Your task to perform on an android device: Open the calendar app, open the side menu, and click the "Day" option Image 0: 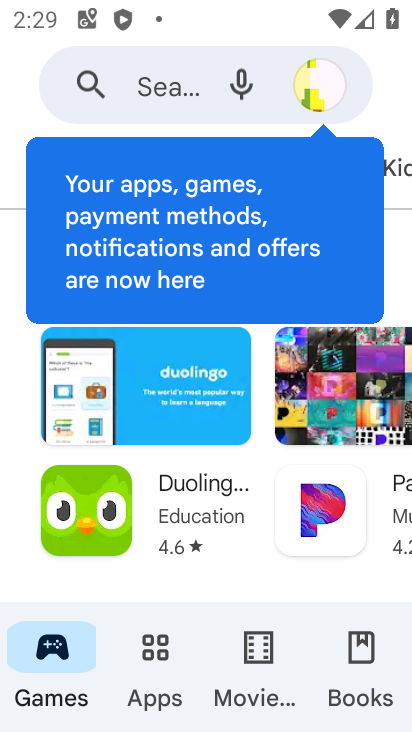
Step 0: press home button
Your task to perform on an android device: Open the calendar app, open the side menu, and click the "Day" option Image 1: 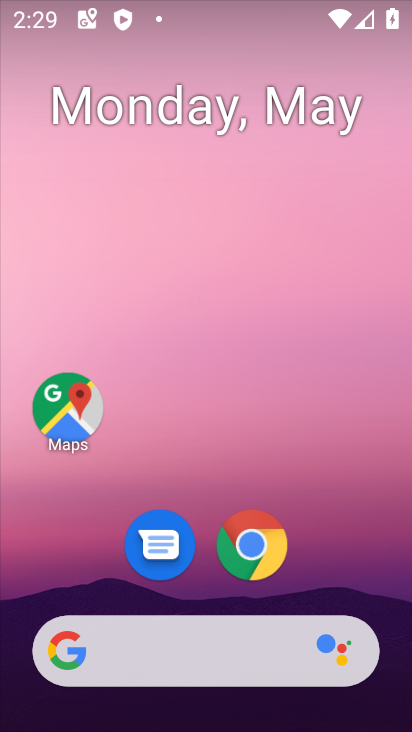
Step 1: drag from (150, 587) to (231, 36)
Your task to perform on an android device: Open the calendar app, open the side menu, and click the "Day" option Image 2: 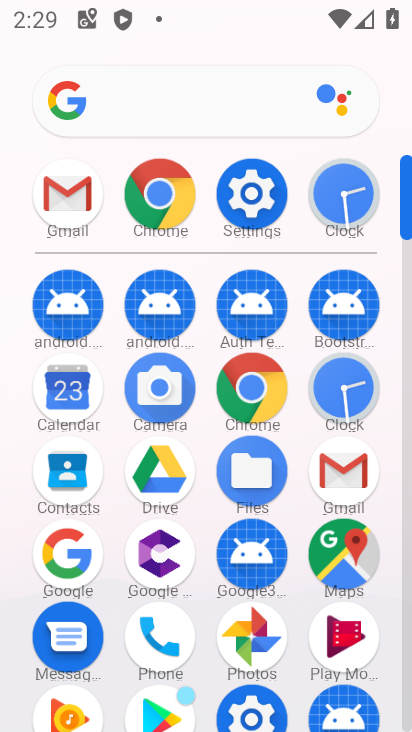
Step 2: click (65, 392)
Your task to perform on an android device: Open the calendar app, open the side menu, and click the "Day" option Image 3: 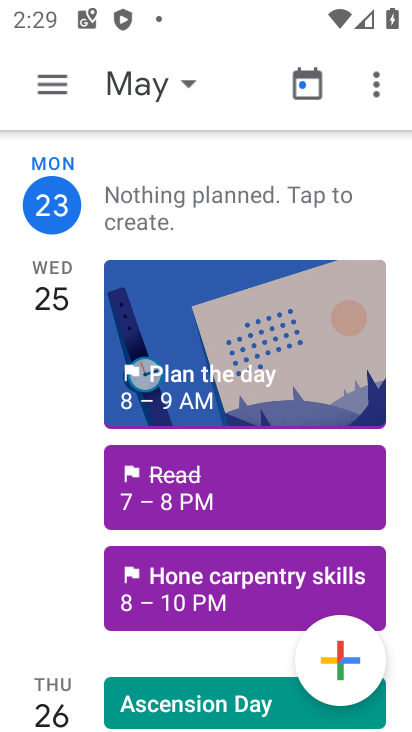
Step 3: click (45, 73)
Your task to perform on an android device: Open the calendar app, open the side menu, and click the "Day" option Image 4: 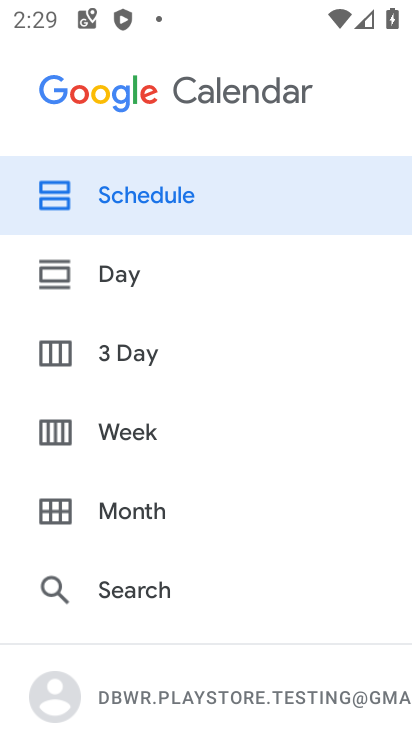
Step 4: click (126, 273)
Your task to perform on an android device: Open the calendar app, open the side menu, and click the "Day" option Image 5: 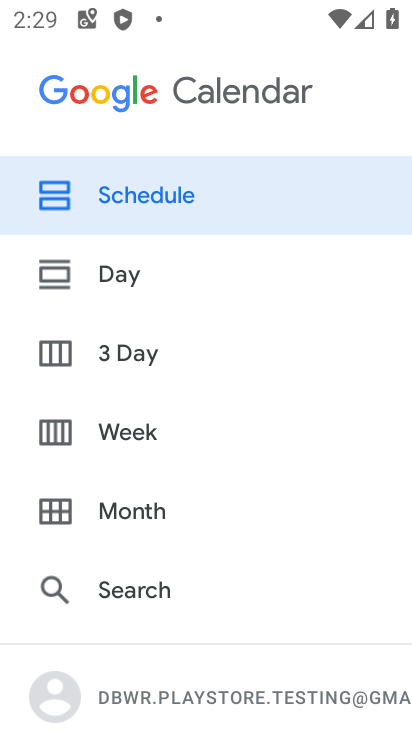
Step 5: click (126, 273)
Your task to perform on an android device: Open the calendar app, open the side menu, and click the "Day" option Image 6: 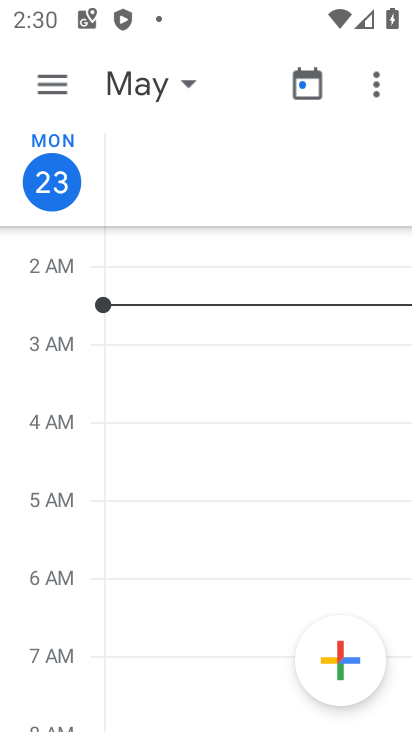
Step 6: task complete